Your task to perform on an android device: Go to Google maps Image 0: 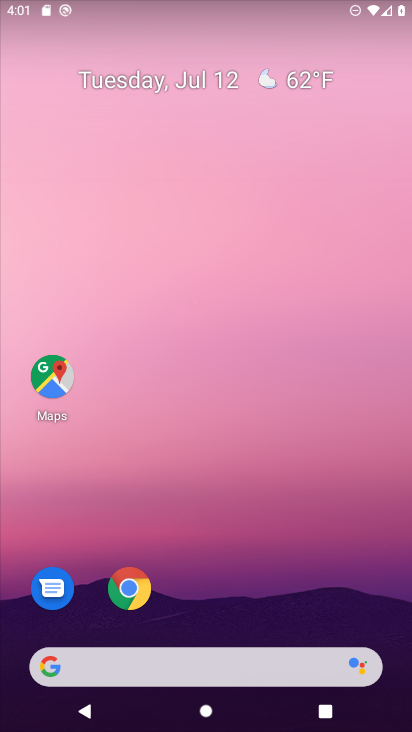
Step 0: click (58, 396)
Your task to perform on an android device: Go to Google maps Image 1: 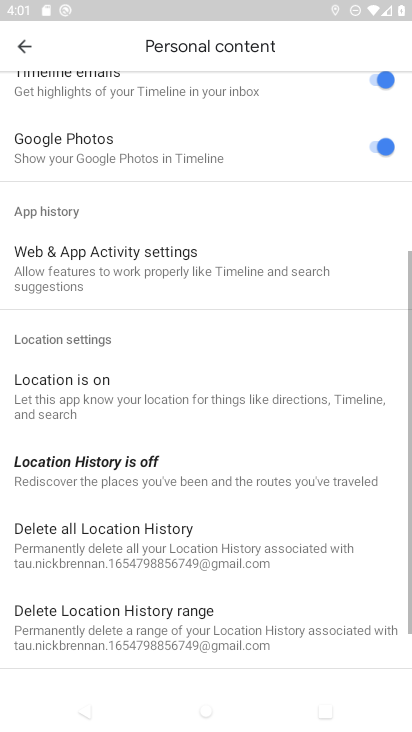
Step 1: click (29, 49)
Your task to perform on an android device: Go to Google maps Image 2: 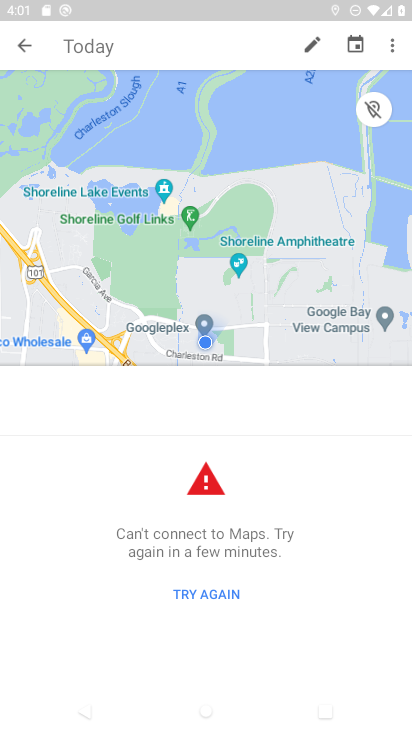
Step 2: click (30, 49)
Your task to perform on an android device: Go to Google maps Image 3: 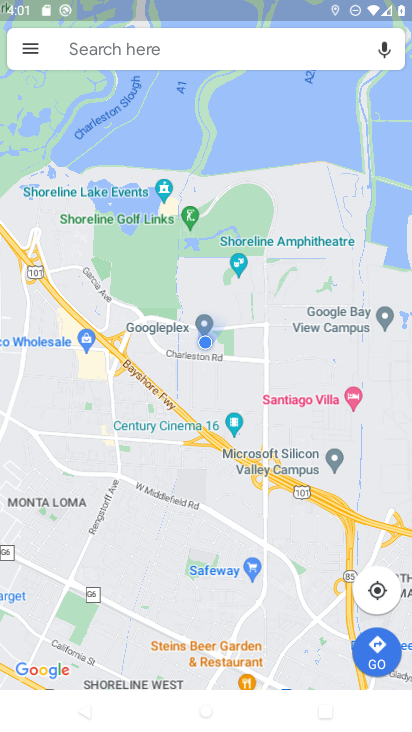
Step 3: task complete